Your task to perform on an android device: See recent photos Image 0: 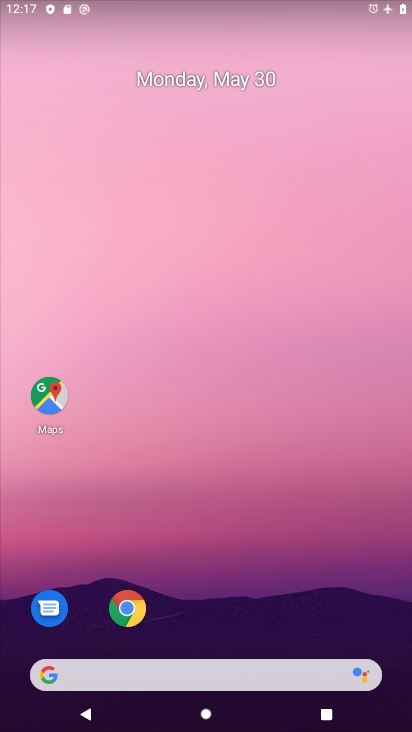
Step 0: drag from (201, 634) to (116, 20)
Your task to perform on an android device: See recent photos Image 1: 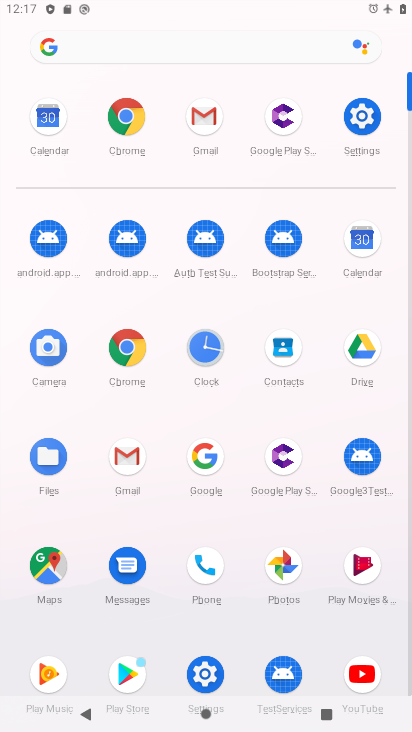
Step 1: click (292, 594)
Your task to perform on an android device: See recent photos Image 2: 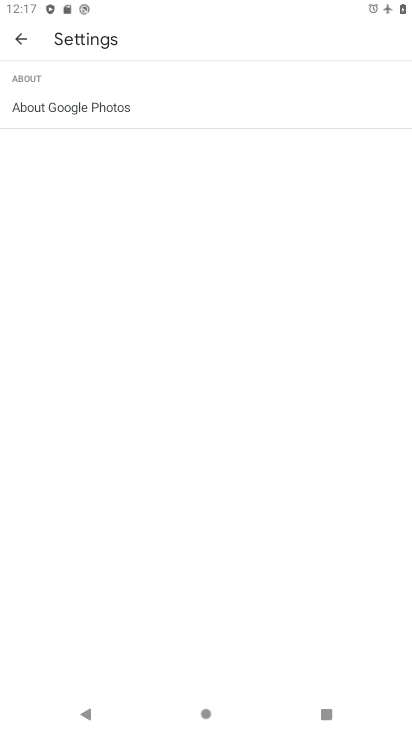
Step 2: click (12, 39)
Your task to perform on an android device: See recent photos Image 3: 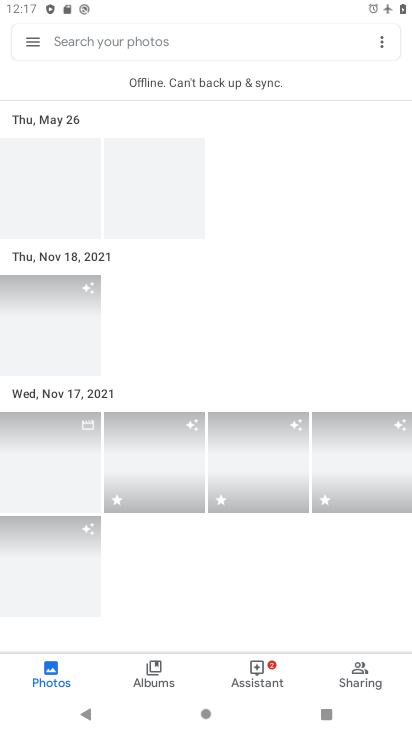
Step 3: task complete